Your task to perform on an android device: change the clock style Image 0: 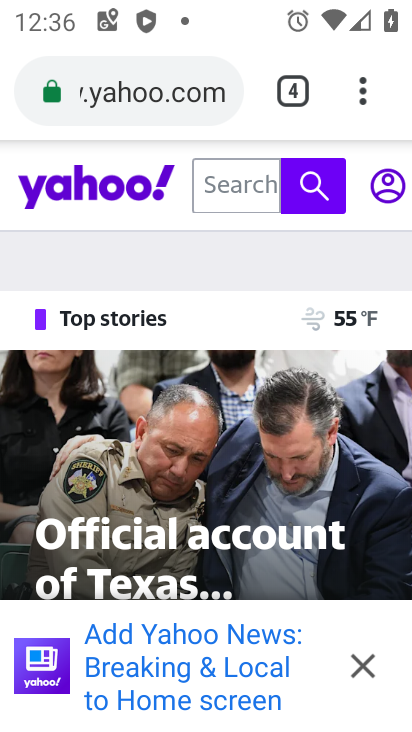
Step 0: press home button
Your task to perform on an android device: change the clock style Image 1: 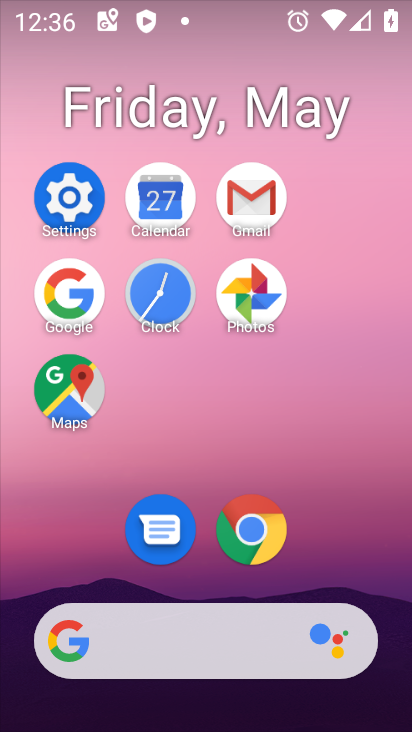
Step 1: click (164, 313)
Your task to perform on an android device: change the clock style Image 2: 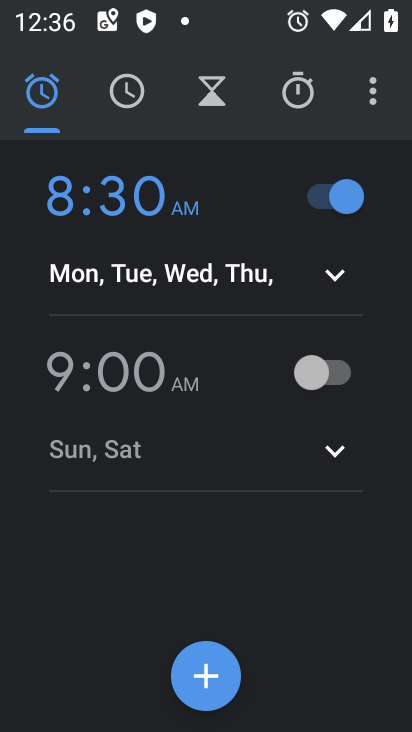
Step 2: click (377, 87)
Your task to perform on an android device: change the clock style Image 3: 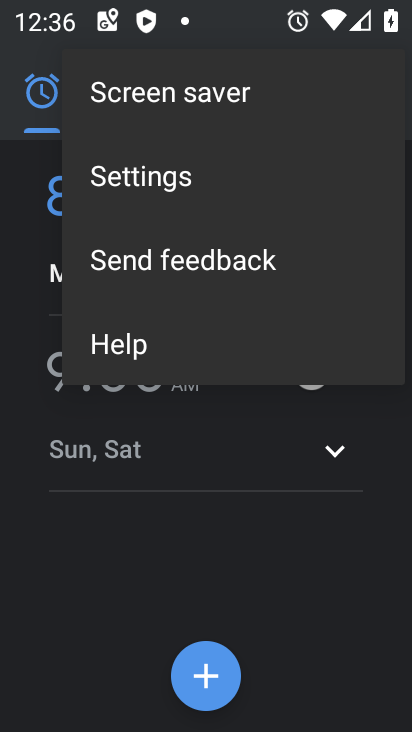
Step 3: click (185, 176)
Your task to perform on an android device: change the clock style Image 4: 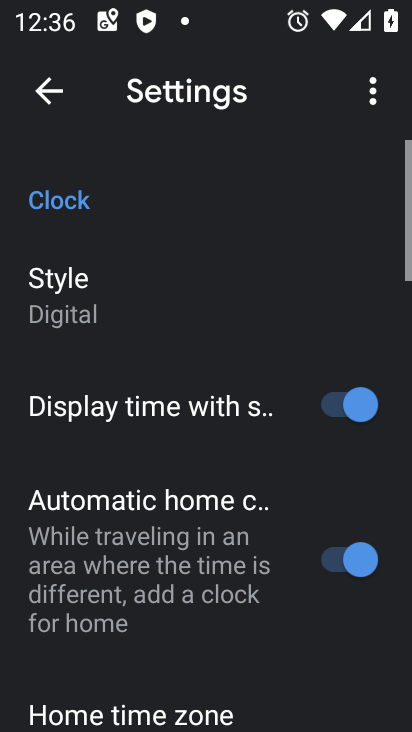
Step 4: click (153, 288)
Your task to perform on an android device: change the clock style Image 5: 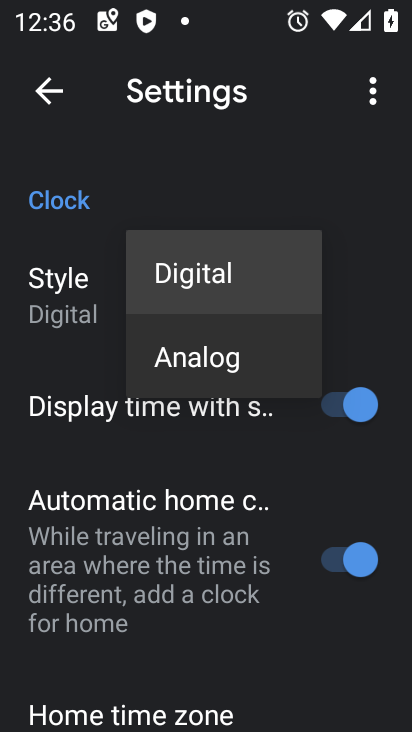
Step 5: click (215, 372)
Your task to perform on an android device: change the clock style Image 6: 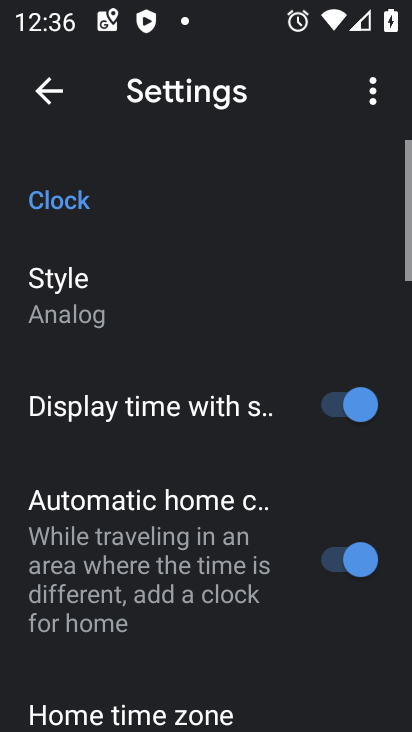
Step 6: task complete